Your task to perform on an android device: Play the last video I watched on Youtube Image 0: 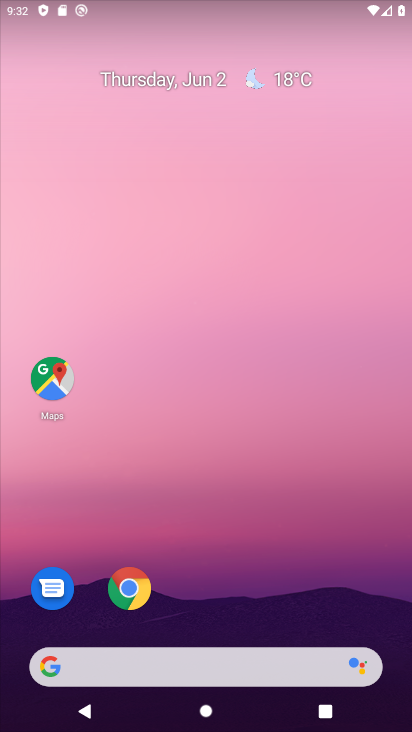
Step 0: drag from (274, 722) to (228, 143)
Your task to perform on an android device: Play the last video I watched on Youtube Image 1: 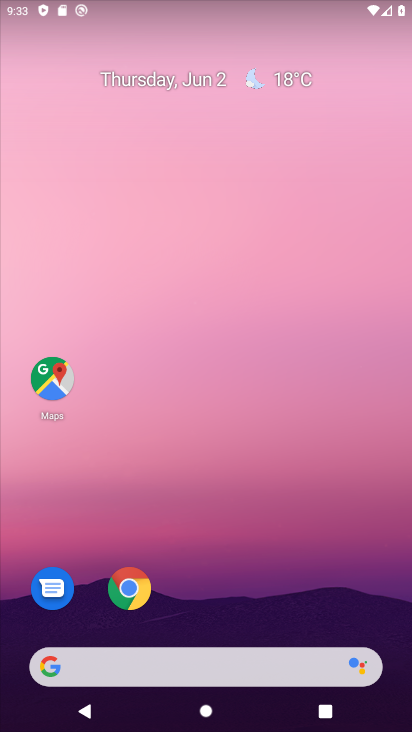
Step 1: drag from (249, 689) to (143, 168)
Your task to perform on an android device: Play the last video I watched on Youtube Image 2: 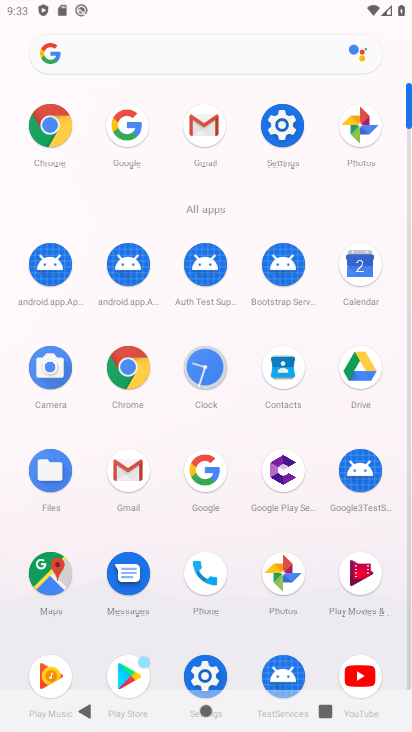
Step 2: click (374, 675)
Your task to perform on an android device: Play the last video I watched on Youtube Image 3: 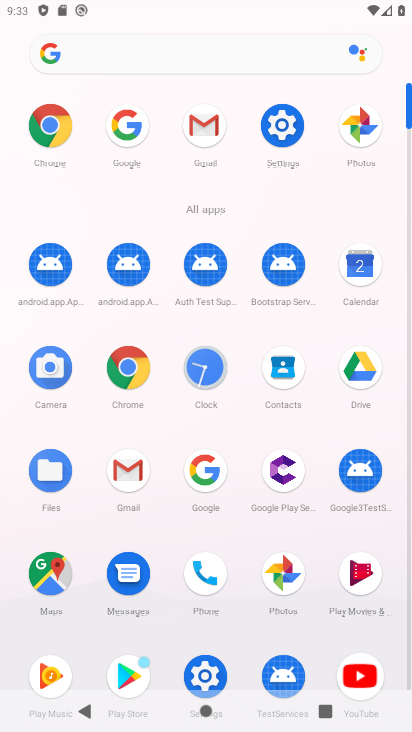
Step 3: click (373, 675)
Your task to perform on an android device: Play the last video I watched on Youtube Image 4: 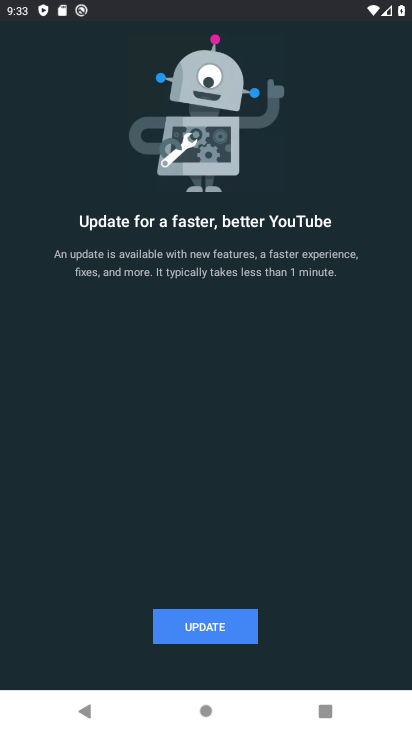
Step 4: press back button
Your task to perform on an android device: Play the last video I watched on Youtube Image 5: 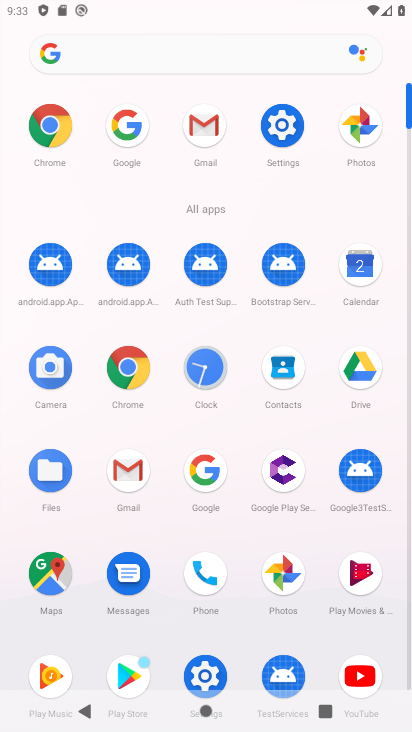
Step 5: click (359, 682)
Your task to perform on an android device: Play the last video I watched on Youtube Image 6: 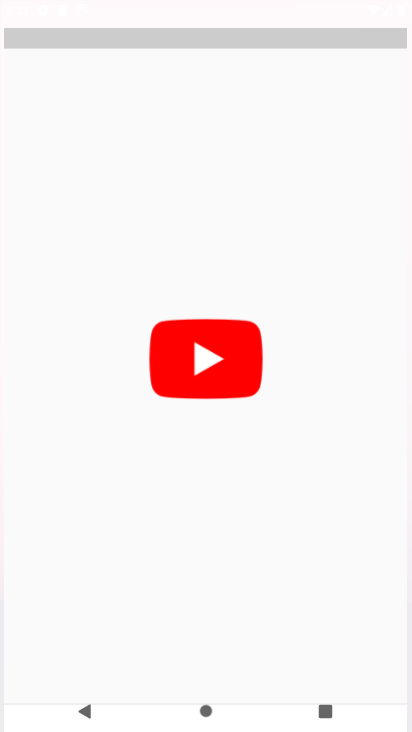
Step 6: click (355, 675)
Your task to perform on an android device: Play the last video I watched on Youtube Image 7: 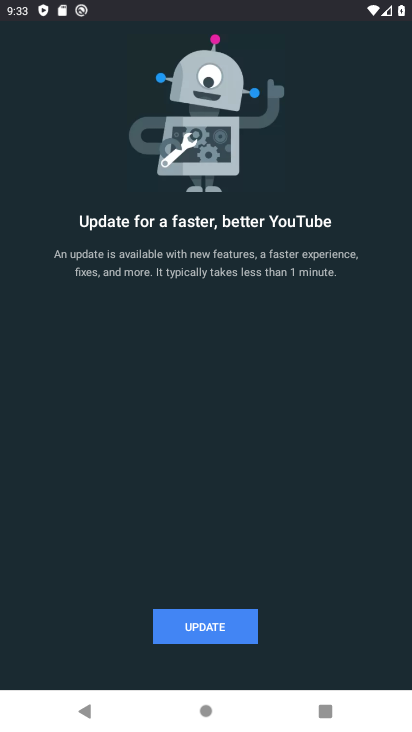
Step 7: click (196, 630)
Your task to perform on an android device: Play the last video I watched on Youtube Image 8: 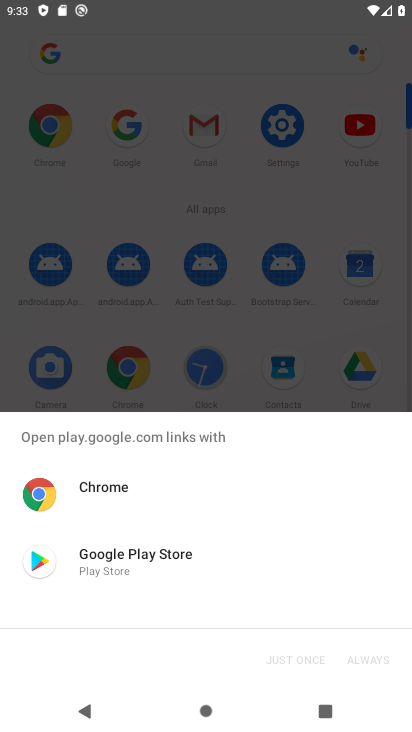
Step 8: click (109, 575)
Your task to perform on an android device: Play the last video I watched on Youtube Image 9: 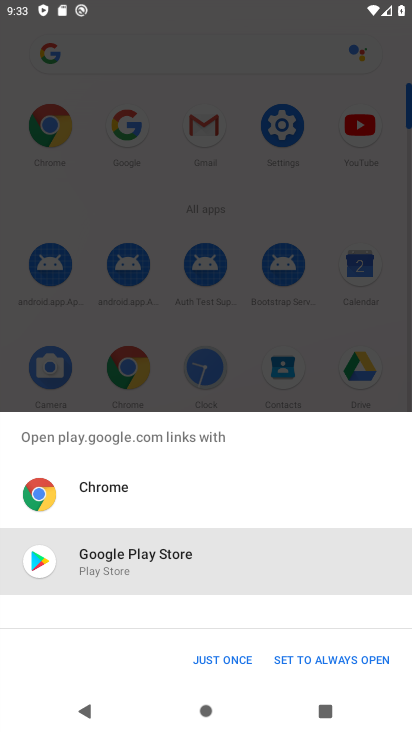
Step 9: click (121, 560)
Your task to perform on an android device: Play the last video I watched on Youtube Image 10: 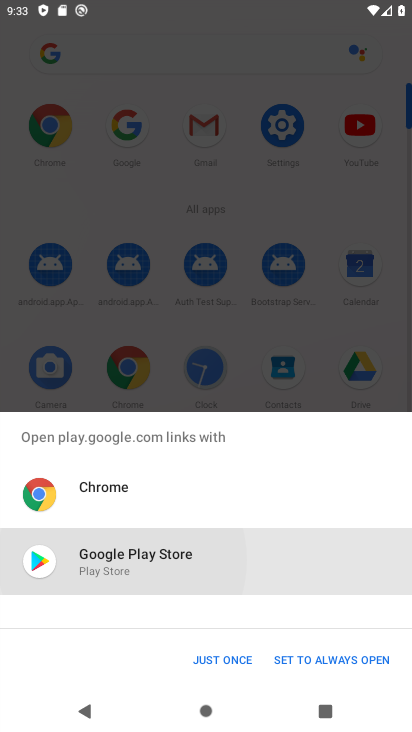
Step 10: click (117, 557)
Your task to perform on an android device: Play the last video I watched on Youtube Image 11: 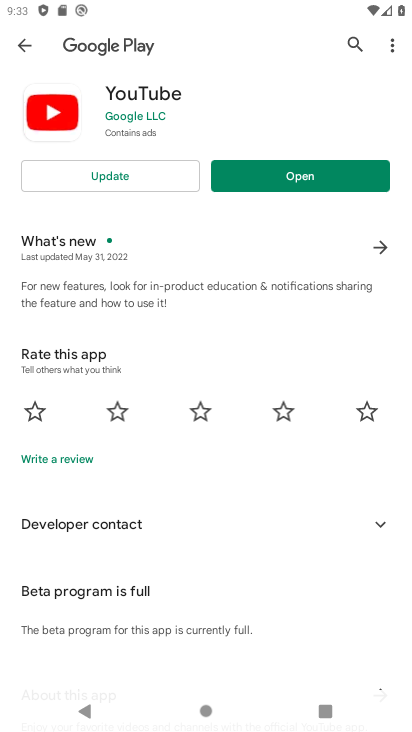
Step 11: click (124, 178)
Your task to perform on an android device: Play the last video I watched on Youtube Image 12: 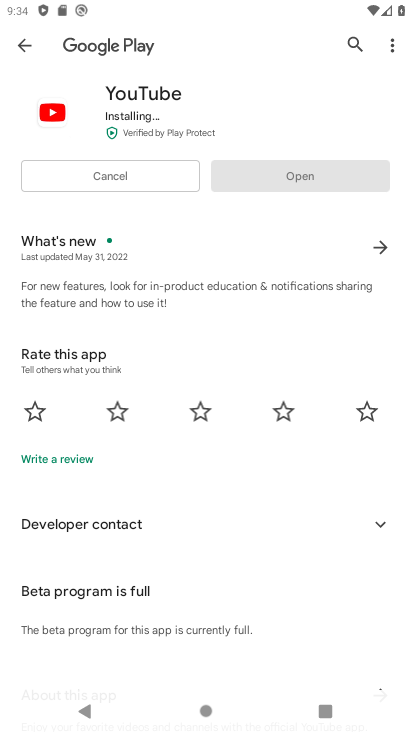
Step 12: click (302, 176)
Your task to perform on an android device: Play the last video I watched on Youtube Image 13: 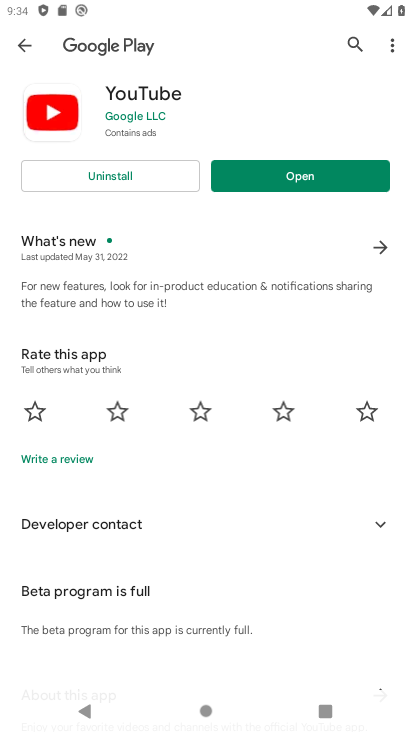
Step 13: click (304, 176)
Your task to perform on an android device: Play the last video I watched on Youtube Image 14: 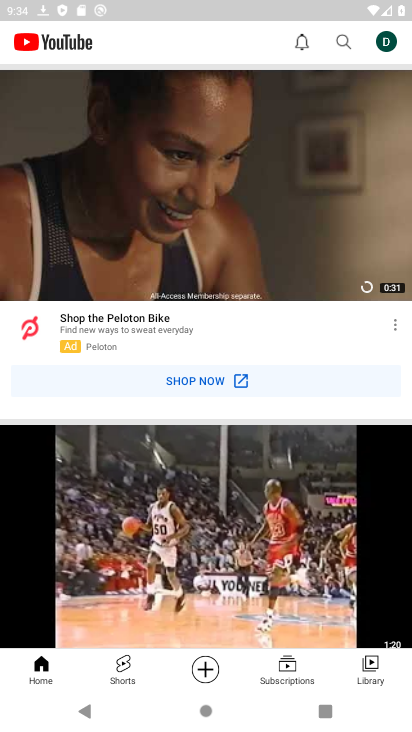
Step 14: task complete